Your task to perform on an android device: turn notification dots on Image 0: 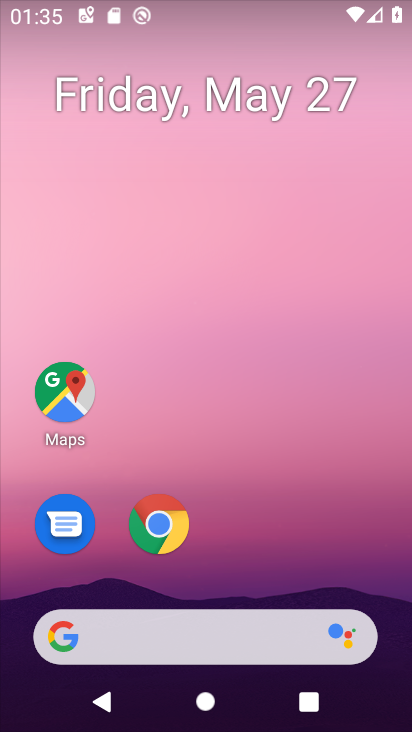
Step 0: drag from (246, 578) to (287, 3)
Your task to perform on an android device: turn notification dots on Image 1: 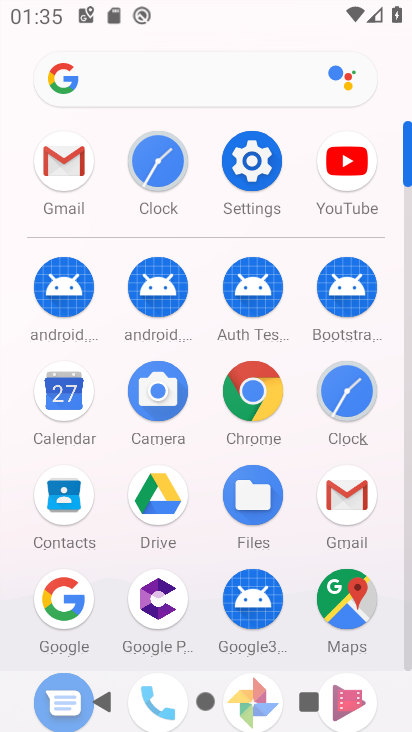
Step 1: click (256, 149)
Your task to perform on an android device: turn notification dots on Image 2: 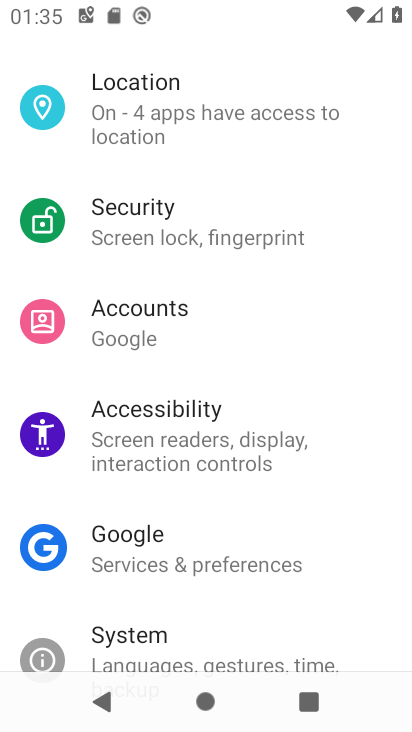
Step 2: drag from (258, 182) to (211, 661)
Your task to perform on an android device: turn notification dots on Image 3: 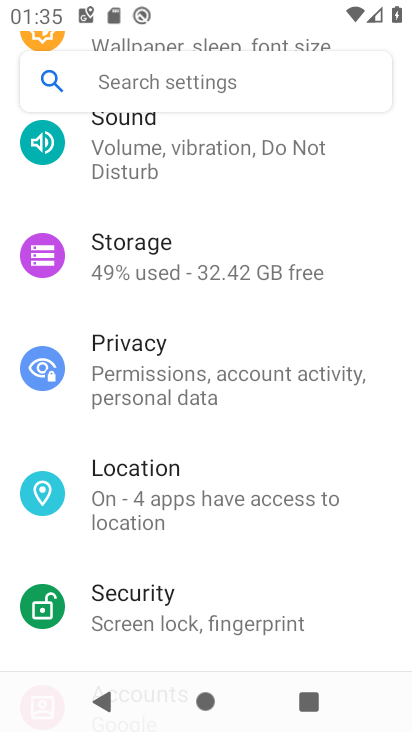
Step 3: drag from (252, 216) to (235, 594)
Your task to perform on an android device: turn notification dots on Image 4: 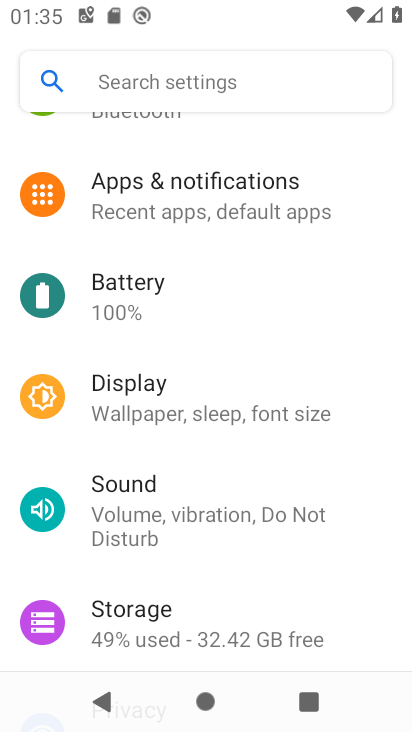
Step 4: click (243, 189)
Your task to perform on an android device: turn notification dots on Image 5: 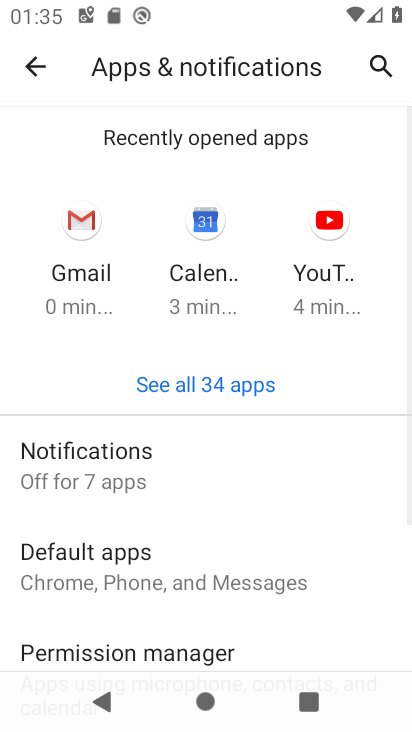
Step 5: click (161, 468)
Your task to perform on an android device: turn notification dots on Image 6: 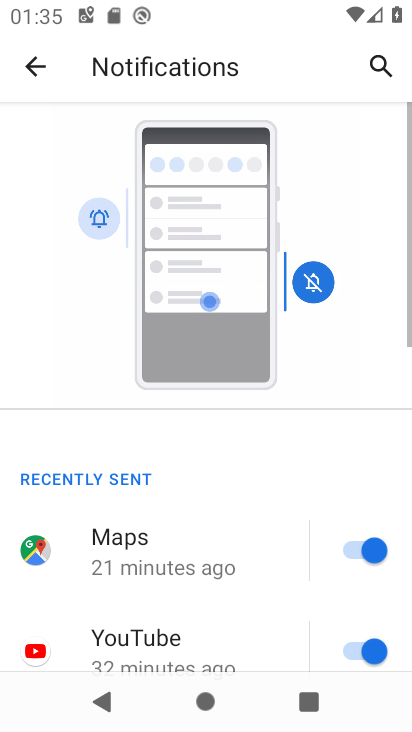
Step 6: drag from (260, 563) to (306, 107)
Your task to perform on an android device: turn notification dots on Image 7: 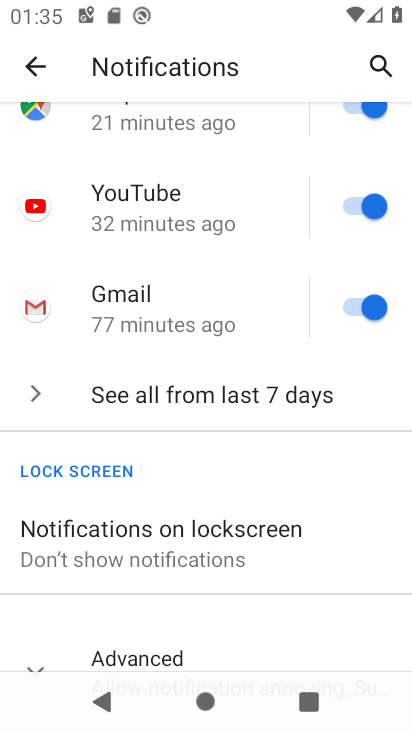
Step 7: drag from (256, 508) to (266, 154)
Your task to perform on an android device: turn notification dots on Image 8: 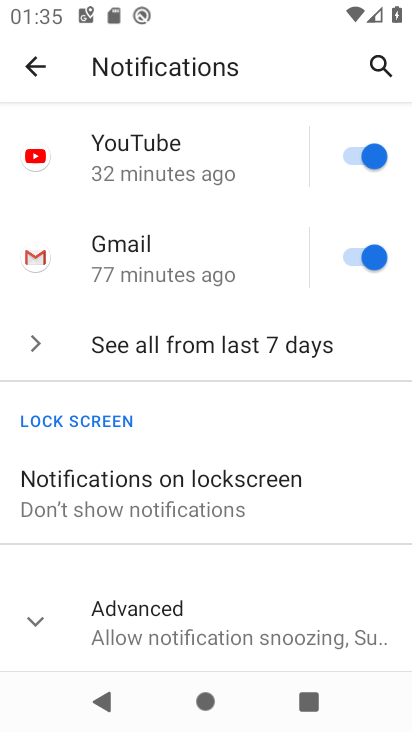
Step 8: click (34, 623)
Your task to perform on an android device: turn notification dots on Image 9: 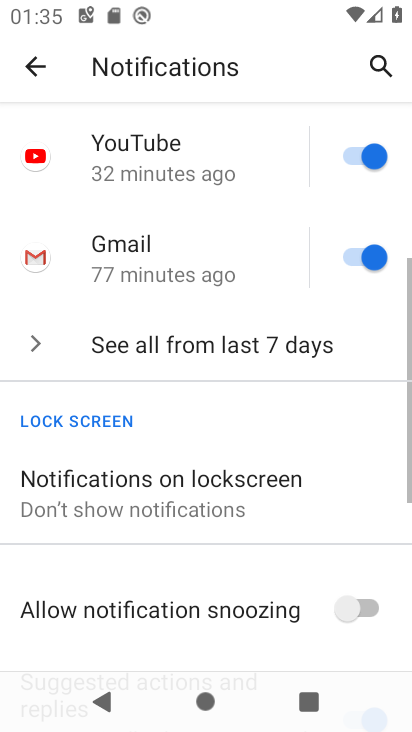
Step 9: drag from (229, 557) to (267, 203)
Your task to perform on an android device: turn notification dots on Image 10: 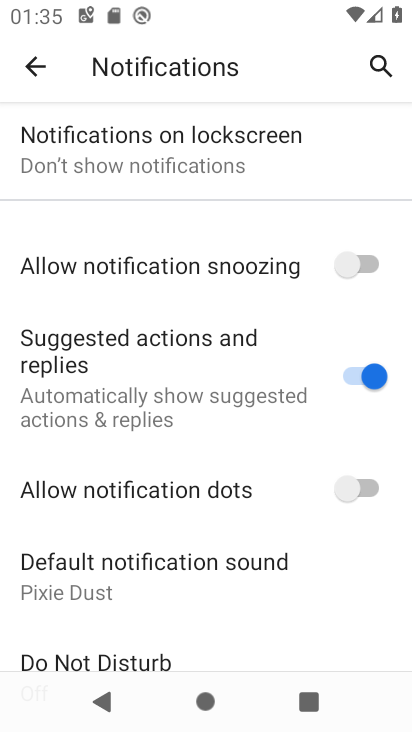
Step 10: click (362, 484)
Your task to perform on an android device: turn notification dots on Image 11: 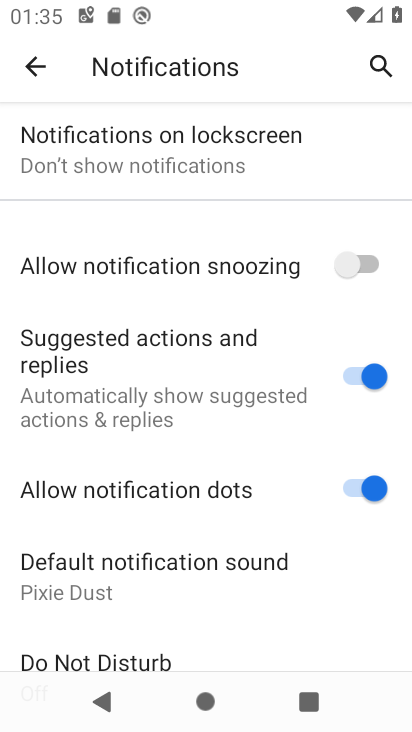
Step 11: task complete